Your task to perform on an android device: change text size in settings app Image 0: 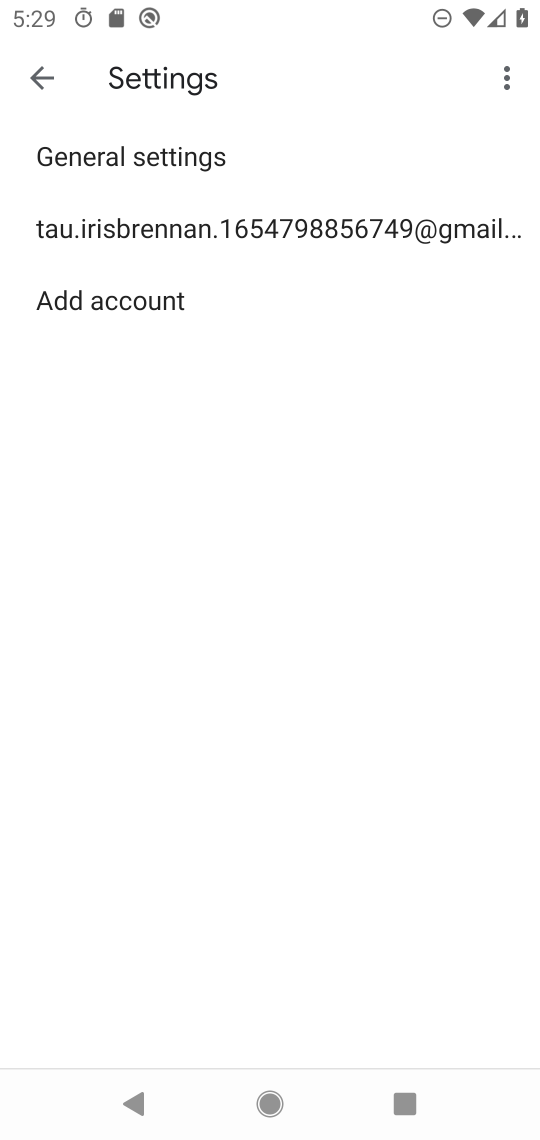
Step 0: click (395, 223)
Your task to perform on an android device: change text size in settings app Image 1: 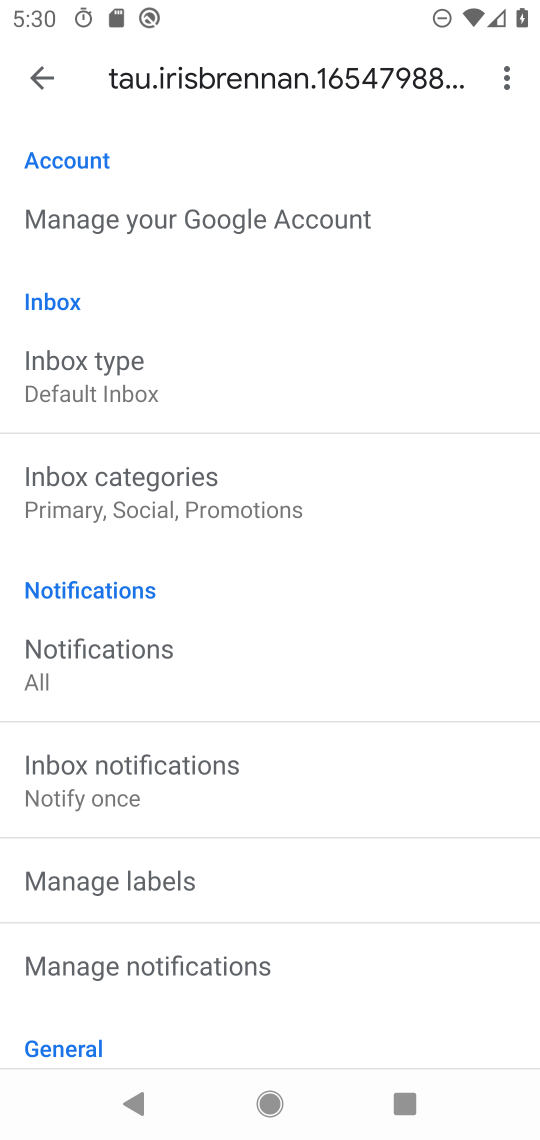
Step 1: drag from (281, 754) to (295, 177)
Your task to perform on an android device: change text size in settings app Image 2: 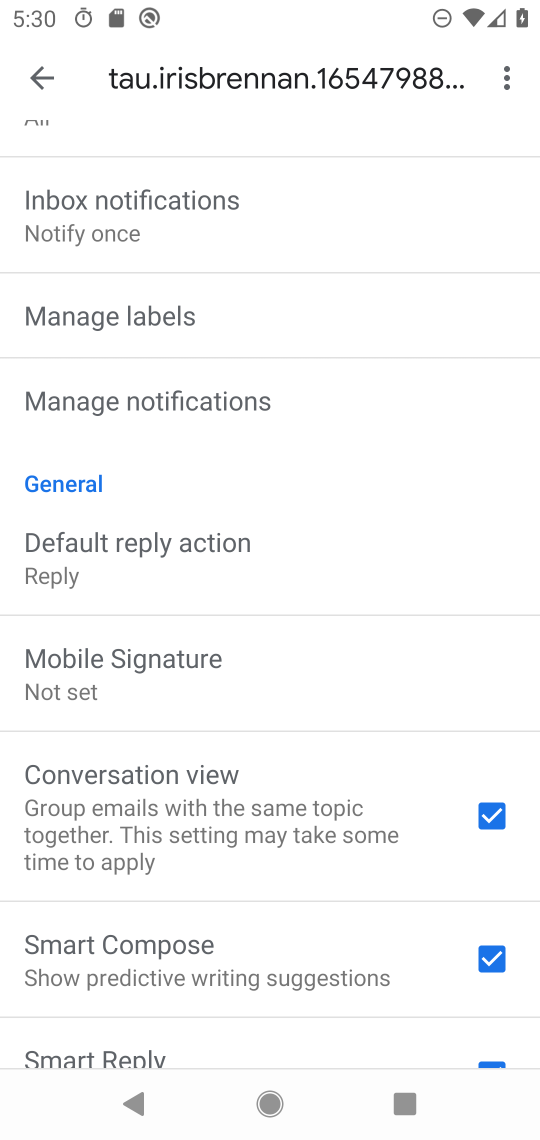
Step 2: drag from (289, 676) to (486, 9)
Your task to perform on an android device: change text size in settings app Image 3: 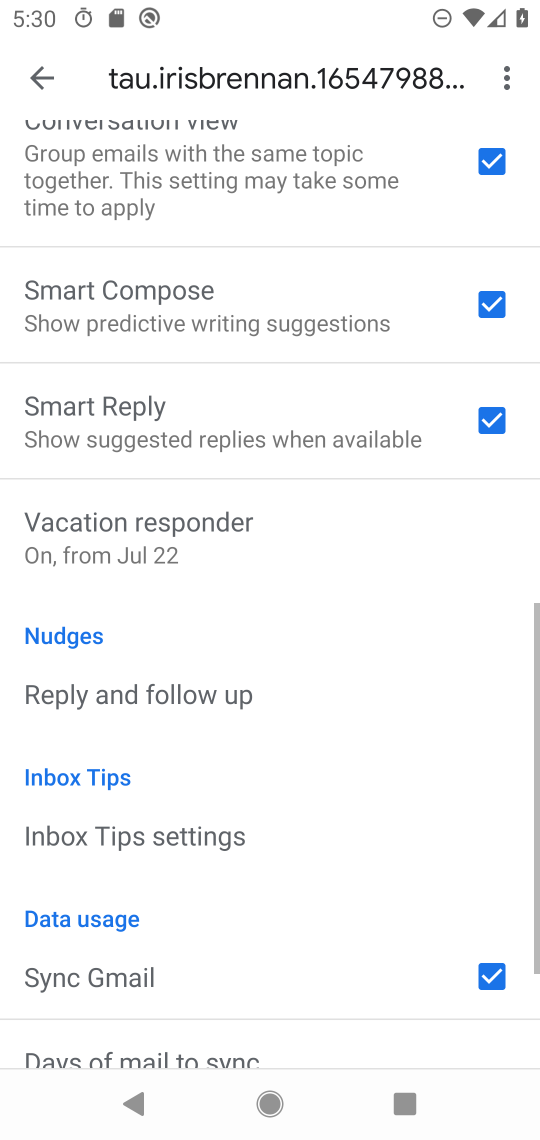
Step 3: drag from (263, 188) to (242, 926)
Your task to perform on an android device: change text size in settings app Image 4: 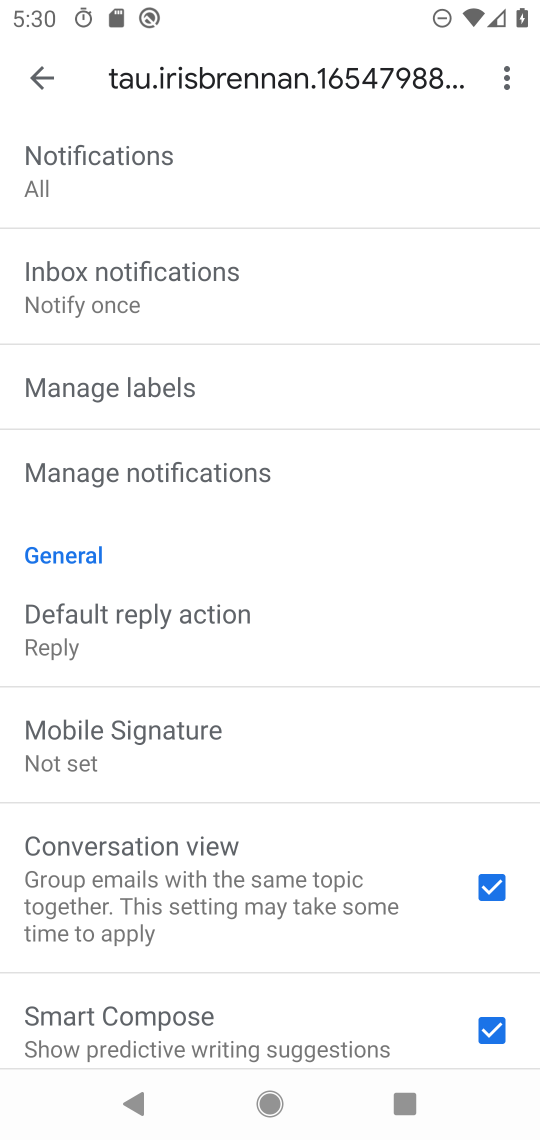
Step 4: drag from (173, 188) to (130, 879)
Your task to perform on an android device: change text size in settings app Image 5: 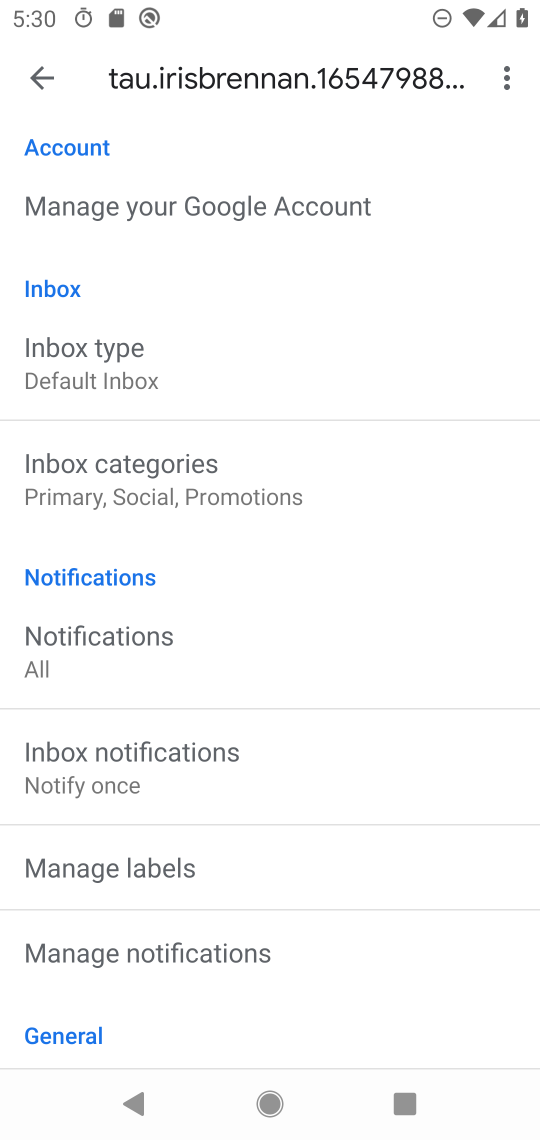
Step 5: press home button
Your task to perform on an android device: change text size in settings app Image 6: 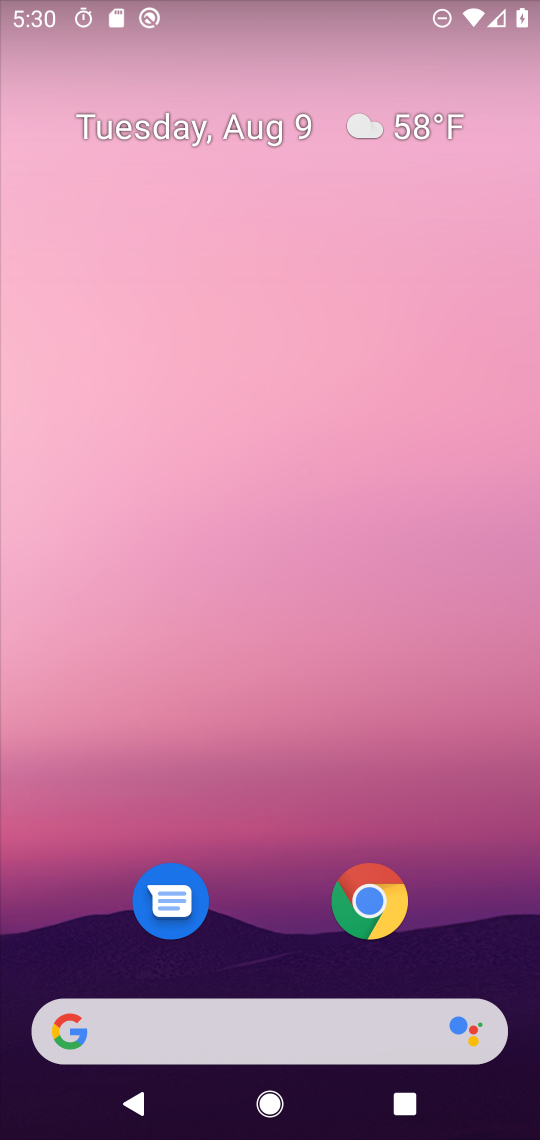
Step 6: drag from (262, 940) to (331, 290)
Your task to perform on an android device: change text size in settings app Image 7: 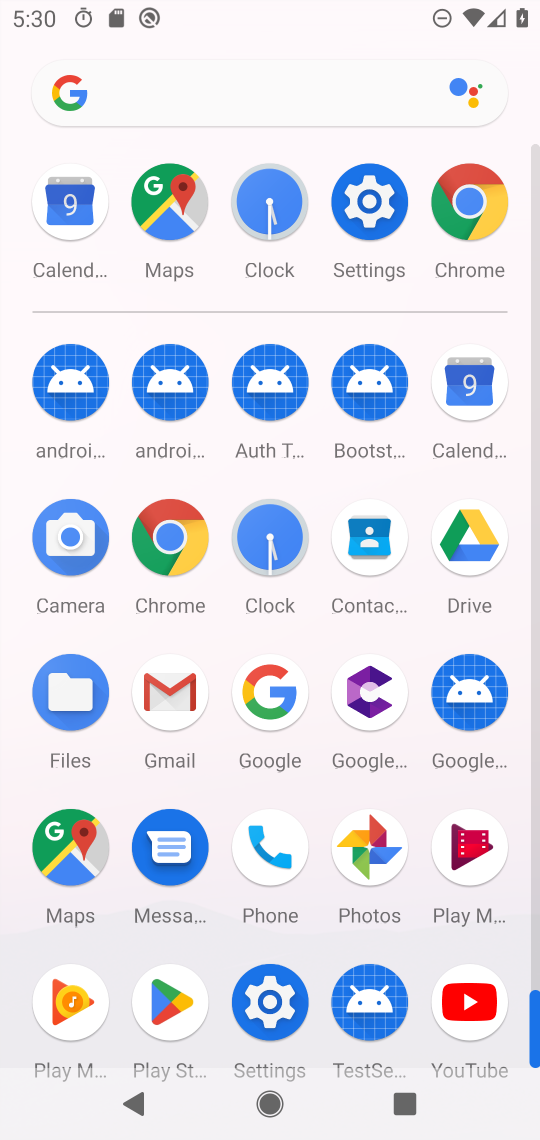
Step 7: click (265, 995)
Your task to perform on an android device: change text size in settings app Image 8: 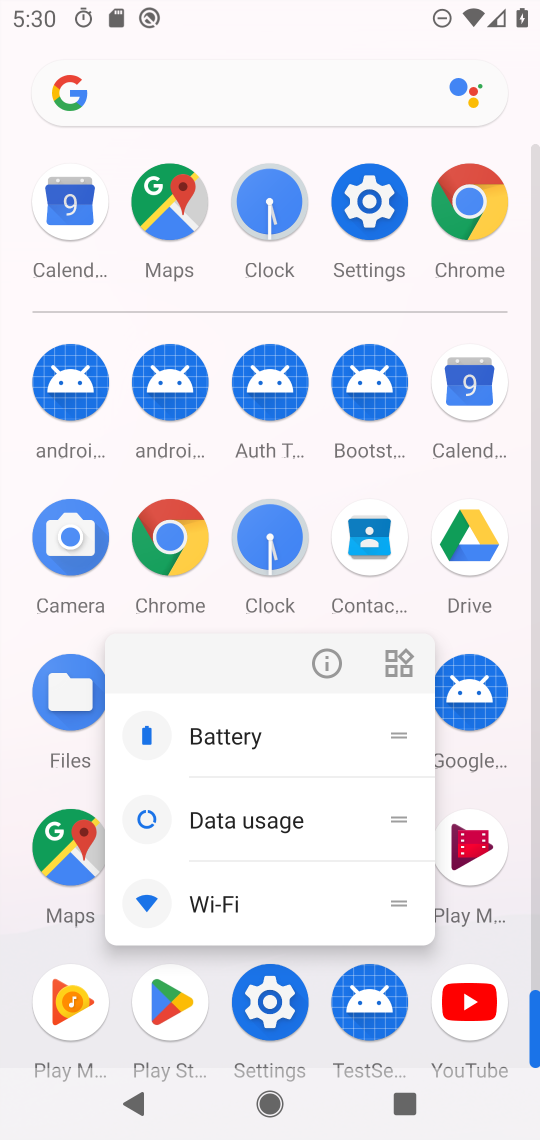
Step 8: click (278, 996)
Your task to perform on an android device: change text size in settings app Image 9: 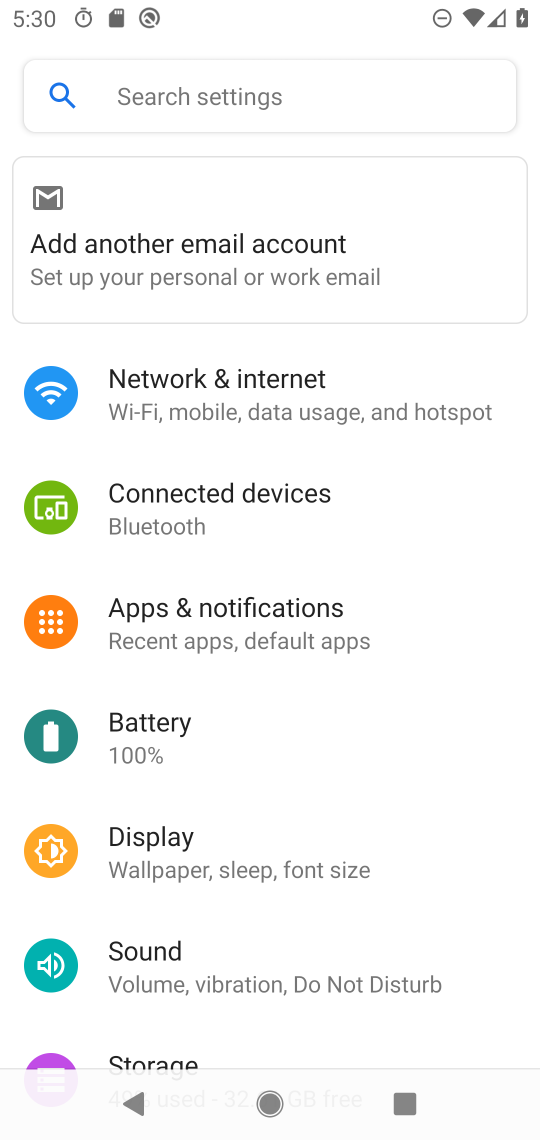
Step 9: drag from (272, 978) to (280, 301)
Your task to perform on an android device: change text size in settings app Image 10: 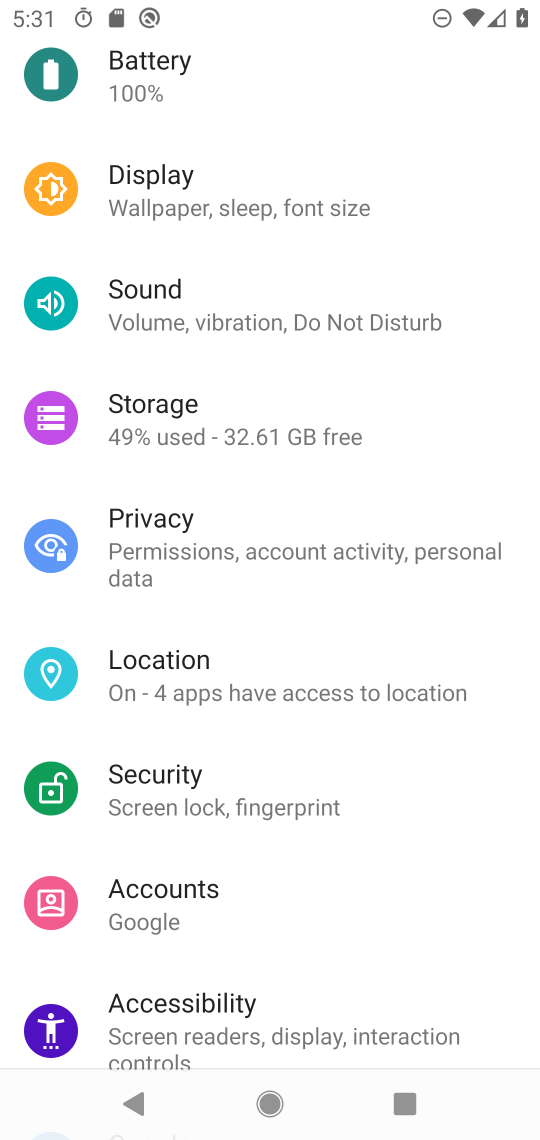
Step 10: click (227, 210)
Your task to perform on an android device: change text size in settings app Image 11: 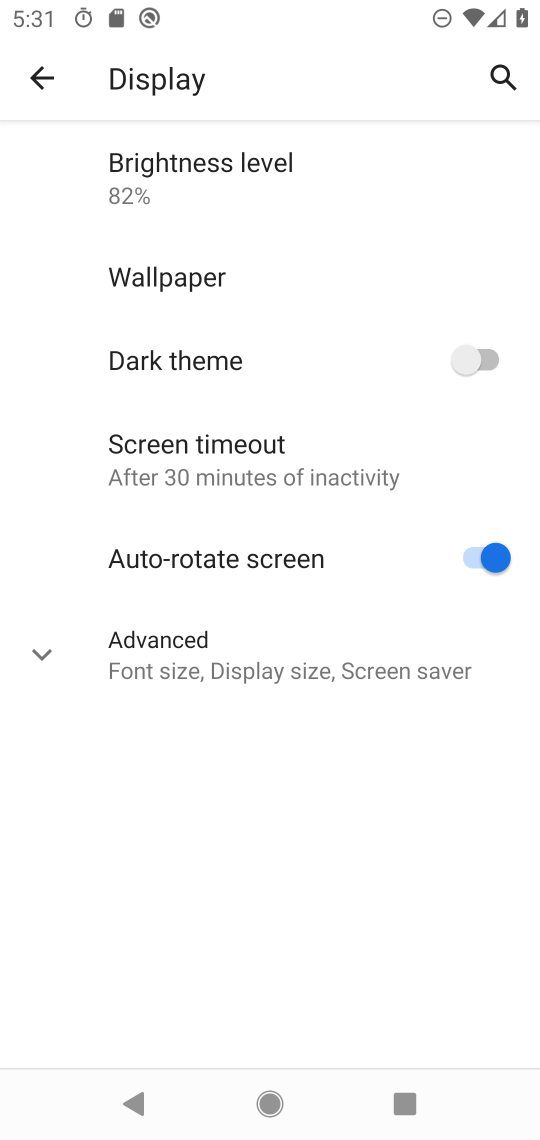
Step 11: click (200, 665)
Your task to perform on an android device: change text size in settings app Image 12: 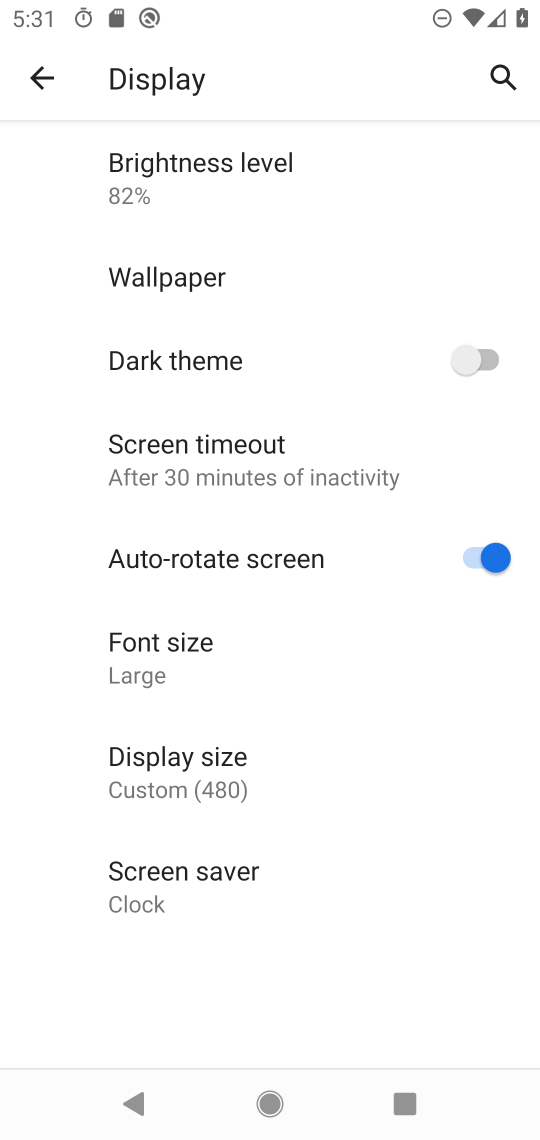
Step 12: click (200, 665)
Your task to perform on an android device: change text size in settings app Image 13: 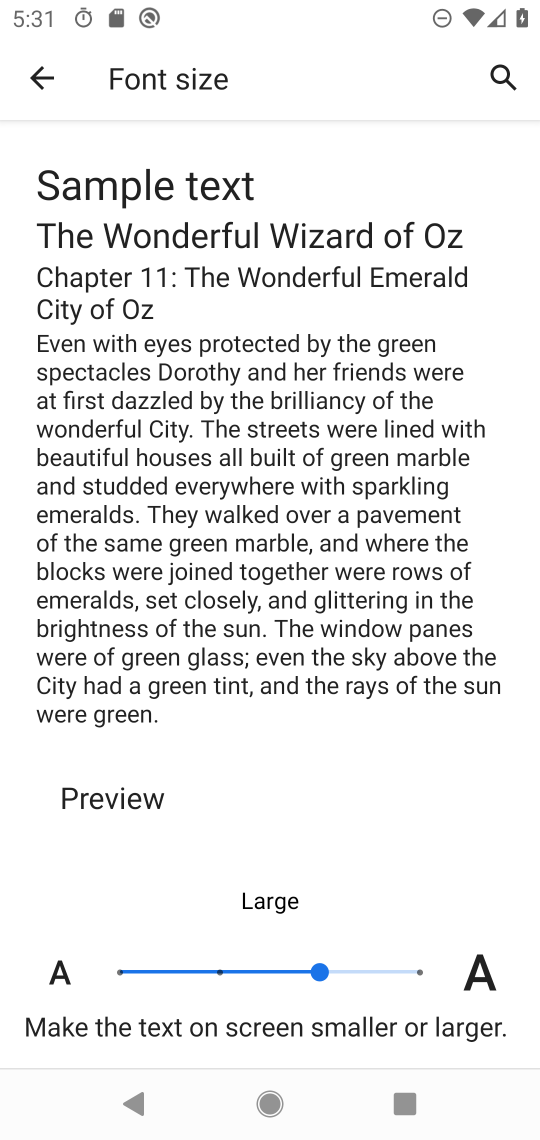
Step 13: click (226, 972)
Your task to perform on an android device: change text size in settings app Image 14: 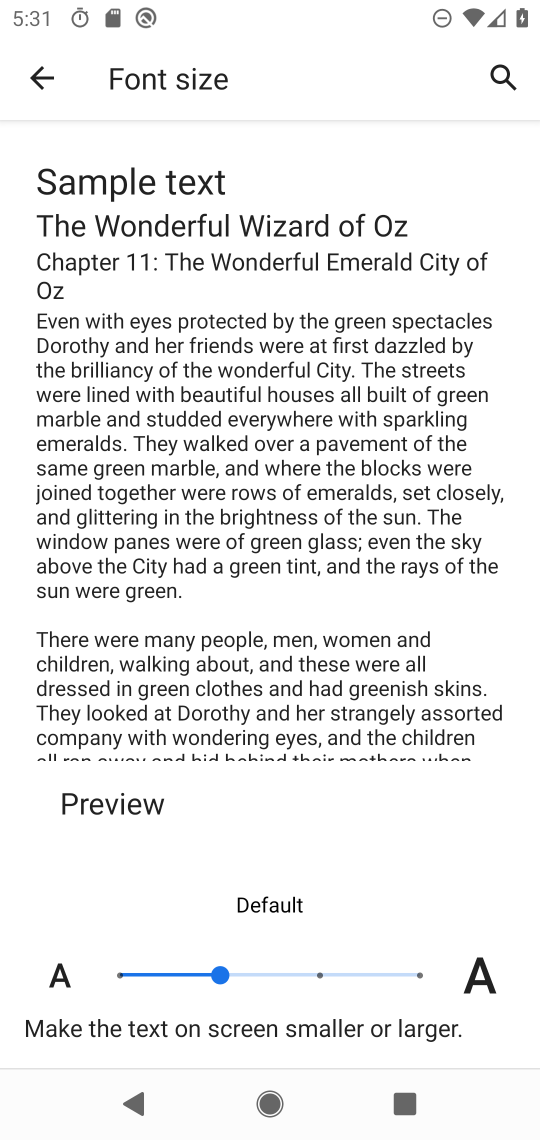
Step 14: task complete